Your task to perform on an android device: Open settings on Google Maps Image 0: 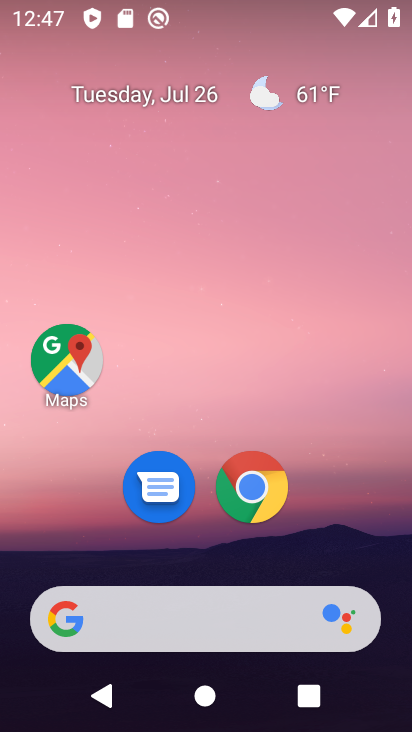
Step 0: click (63, 351)
Your task to perform on an android device: Open settings on Google Maps Image 1: 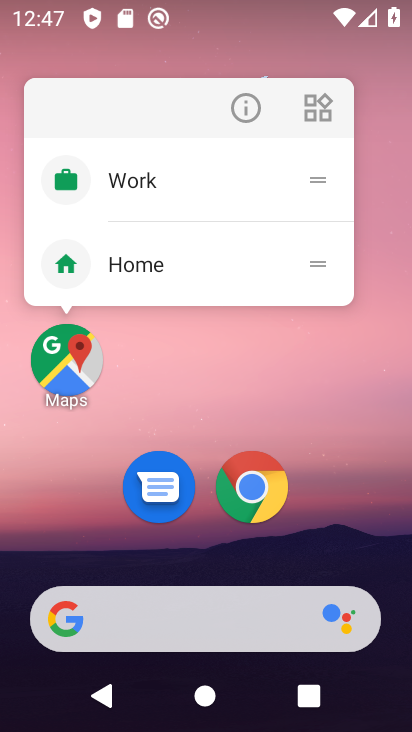
Step 1: click (65, 348)
Your task to perform on an android device: Open settings on Google Maps Image 2: 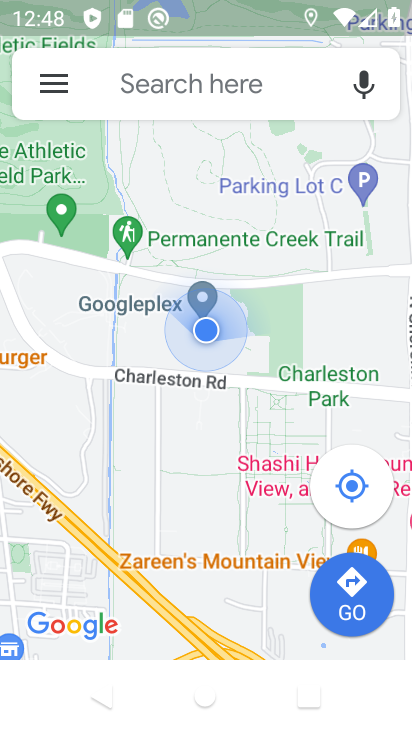
Step 2: click (66, 77)
Your task to perform on an android device: Open settings on Google Maps Image 3: 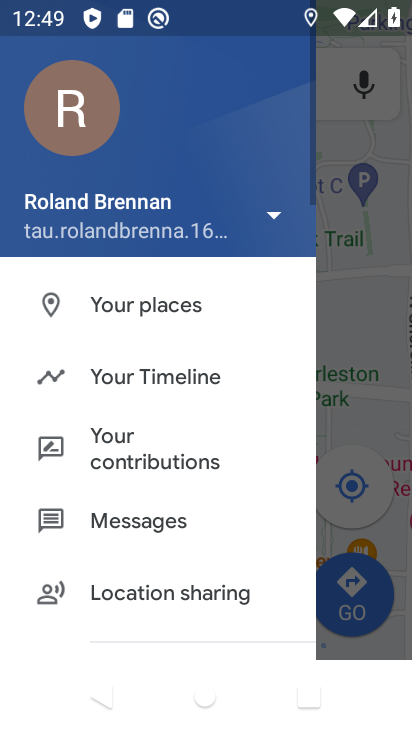
Step 3: drag from (151, 555) to (211, 42)
Your task to perform on an android device: Open settings on Google Maps Image 4: 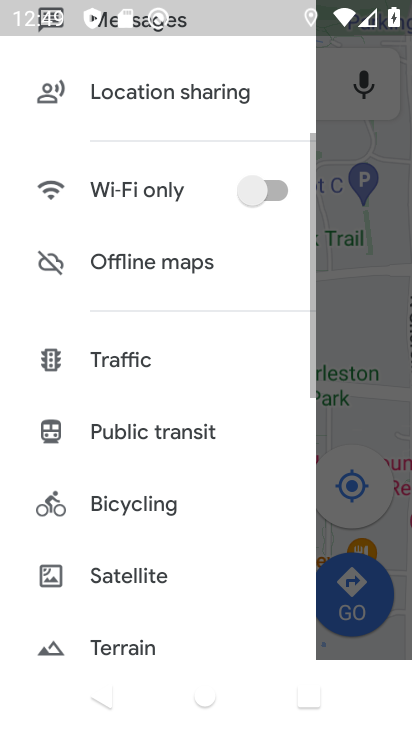
Step 4: drag from (138, 584) to (198, 9)
Your task to perform on an android device: Open settings on Google Maps Image 5: 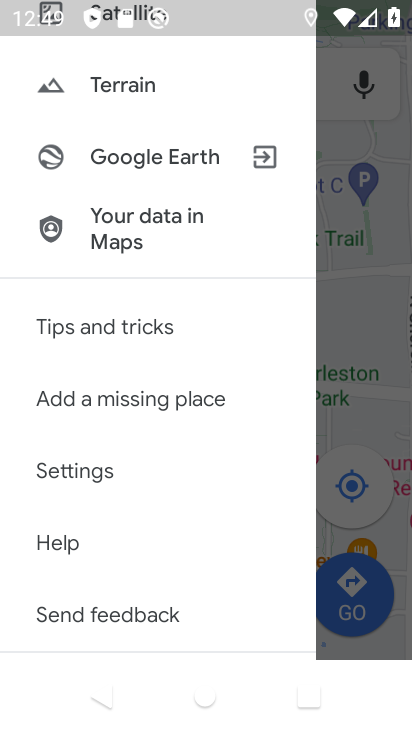
Step 5: click (66, 471)
Your task to perform on an android device: Open settings on Google Maps Image 6: 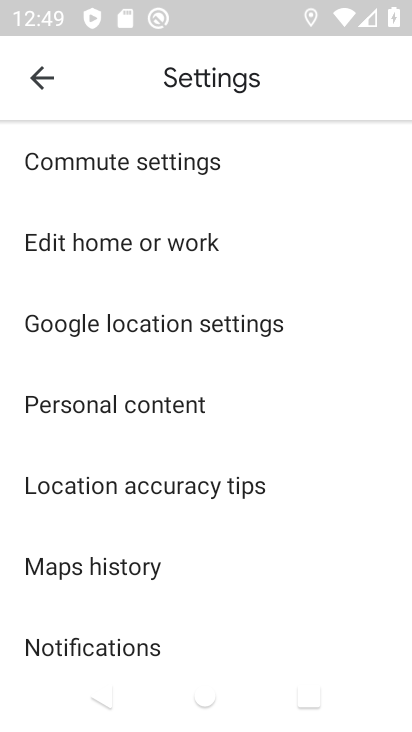
Step 6: task complete